Your task to perform on an android device: empty trash in the gmail app Image 0: 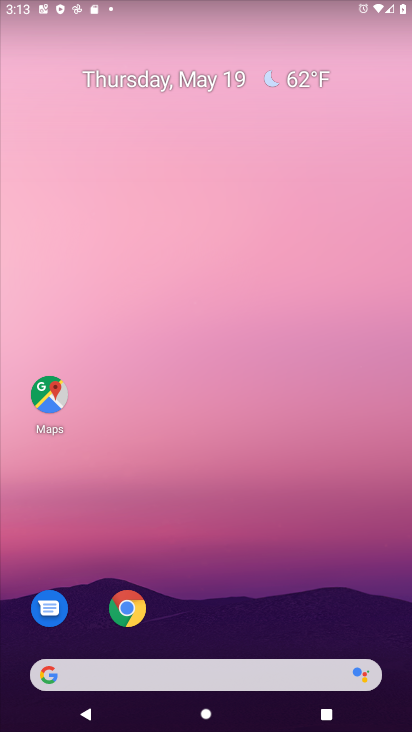
Step 0: drag from (317, 593) to (265, 166)
Your task to perform on an android device: empty trash in the gmail app Image 1: 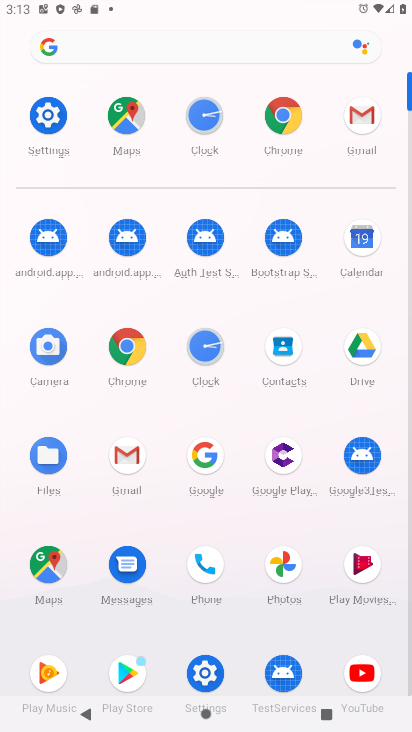
Step 1: click (370, 136)
Your task to perform on an android device: empty trash in the gmail app Image 2: 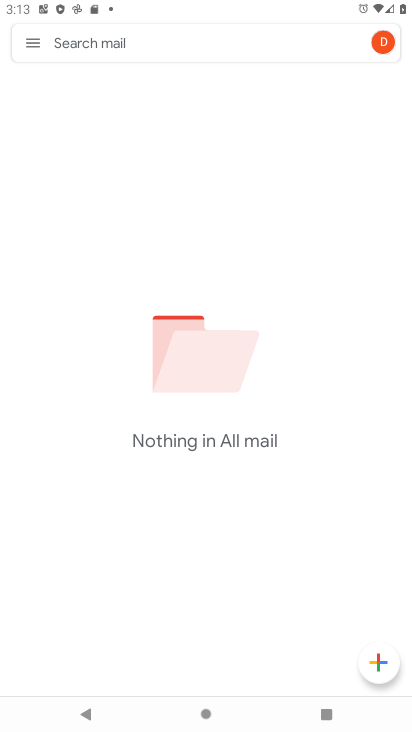
Step 2: click (44, 46)
Your task to perform on an android device: empty trash in the gmail app Image 3: 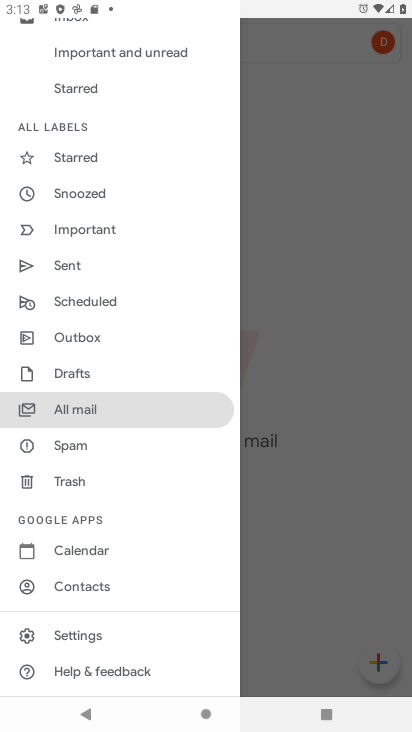
Step 3: click (77, 481)
Your task to perform on an android device: empty trash in the gmail app Image 4: 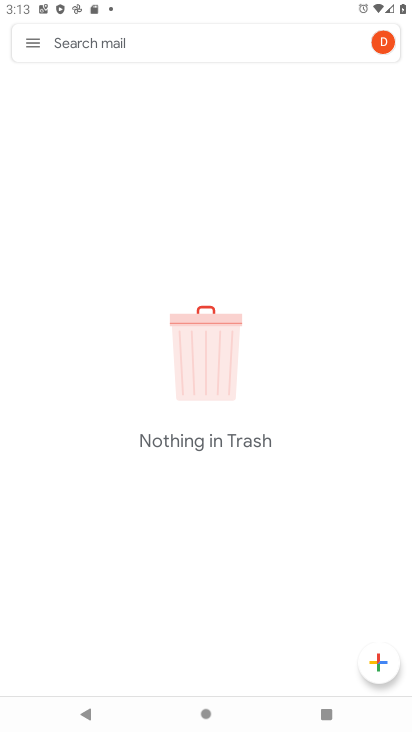
Step 4: task complete